Your task to perform on an android device: Open notification settings Image 0: 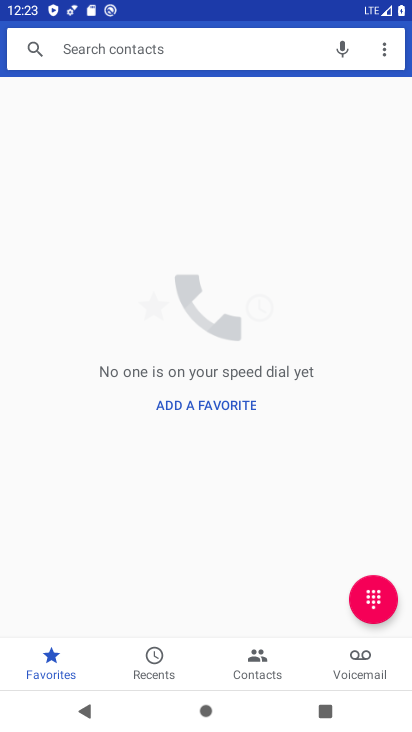
Step 0: press home button
Your task to perform on an android device: Open notification settings Image 1: 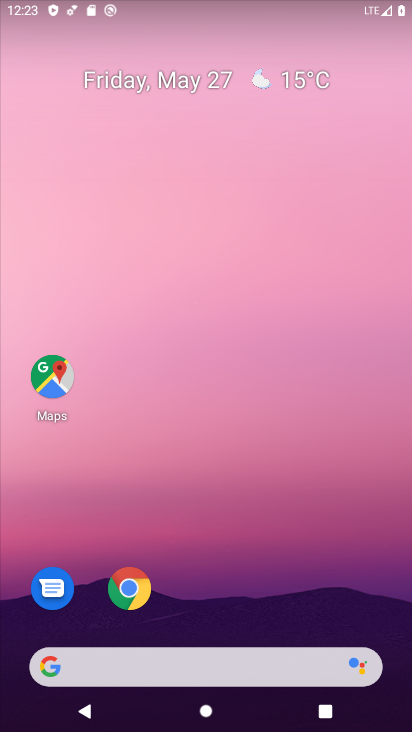
Step 1: drag from (362, 617) to (333, 43)
Your task to perform on an android device: Open notification settings Image 2: 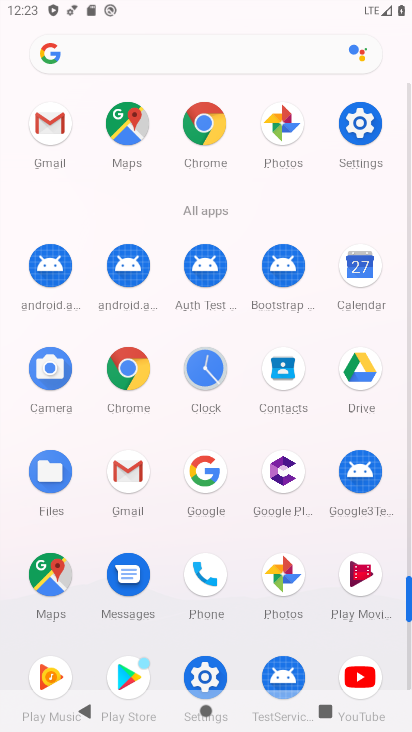
Step 2: click (206, 677)
Your task to perform on an android device: Open notification settings Image 3: 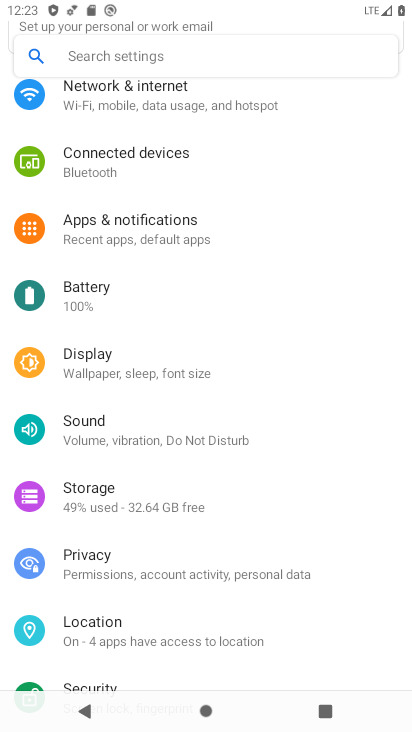
Step 3: click (143, 232)
Your task to perform on an android device: Open notification settings Image 4: 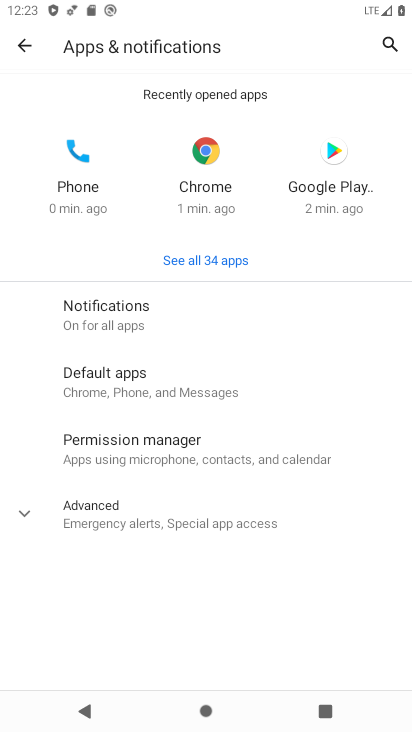
Step 4: click (106, 309)
Your task to perform on an android device: Open notification settings Image 5: 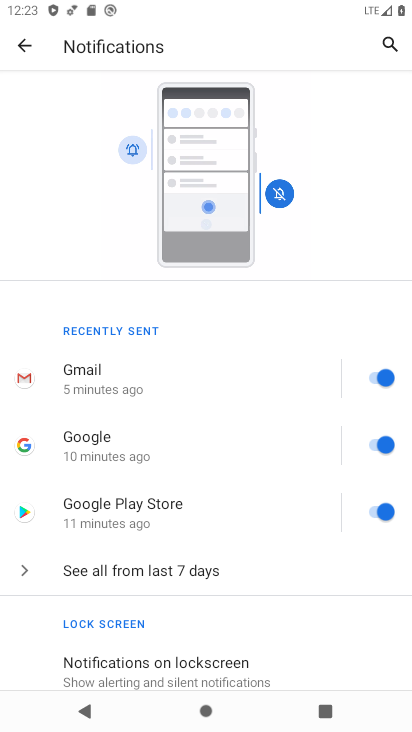
Step 5: drag from (312, 622) to (338, 171)
Your task to perform on an android device: Open notification settings Image 6: 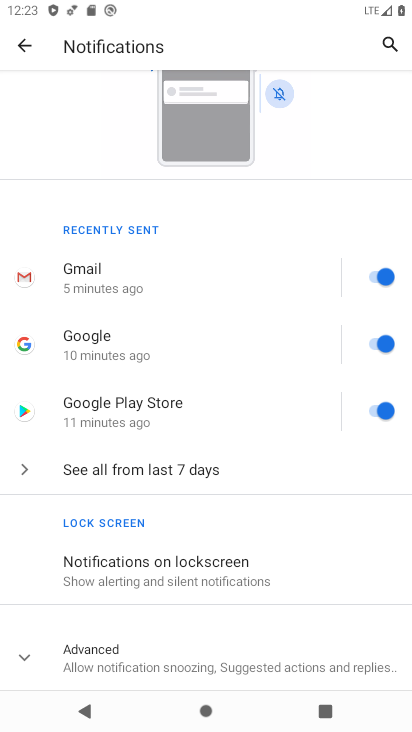
Step 6: click (12, 653)
Your task to perform on an android device: Open notification settings Image 7: 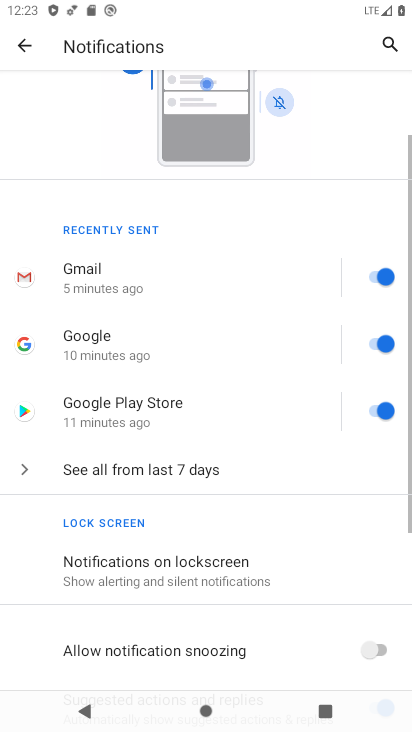
Step 7: task complete